Your task to perform on an android device: set default search engine in the chrome app Image 0: 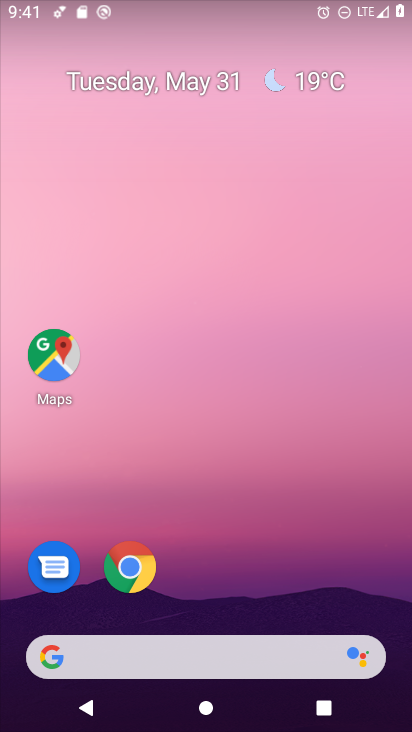
Step 0: drag from (108, 629) to (143, 366)
Your task to perform on an android device: set default search engine in the chrome app Image 1: 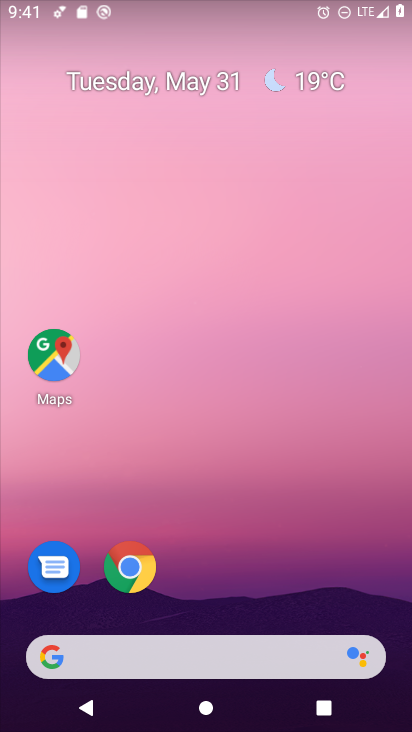
Step 1: drag from (271, 589) to (288, 312)
Your task to perform on an android device: set default search engine in the chrome app Image 2: 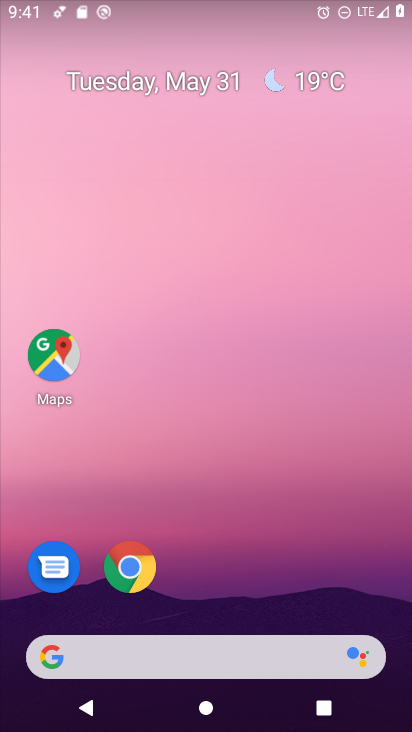
Step 2: click (128, 567)
Your task to perform on an android device: set default search engine in the chrome app Image 3: 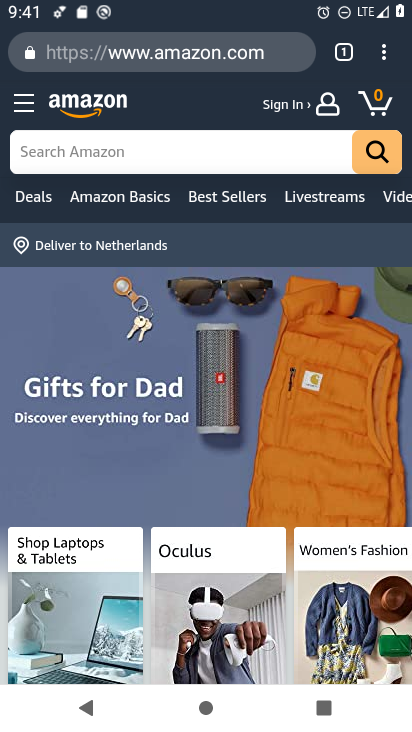
Step 3: click (386, 48)
Your task to perform on an android device: set default search engine in the chrome app Image 4: 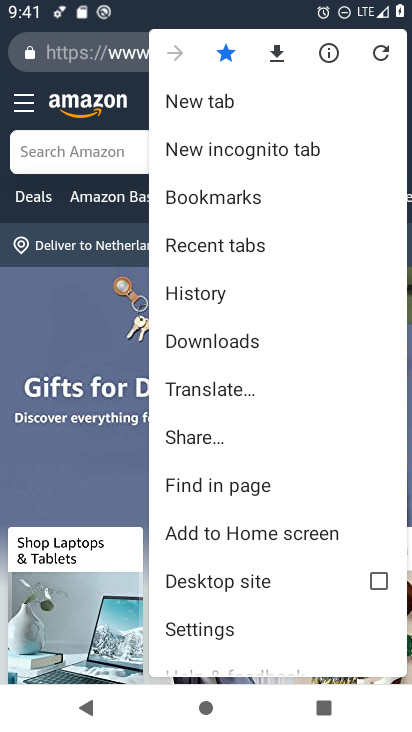
Step 4: click (206, 635)
Your task to perform on an android device: set default search engine in the chrome app Image 5: 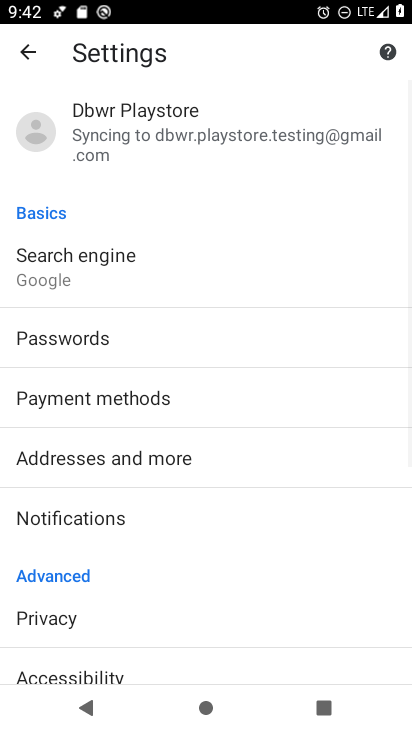
Step 5: click (54, 278)
Your task to perform on an android device: set default search engine in the chrome app Image 6: 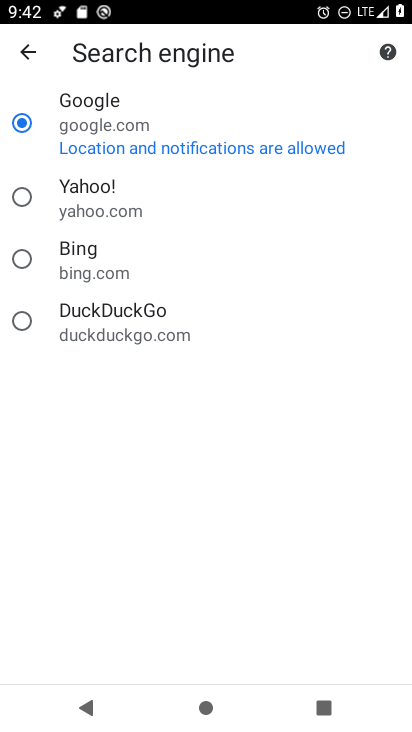
Step 6: task complete